Your task to perform on an android device: delete the emails in spam in the gmail app Image 0: 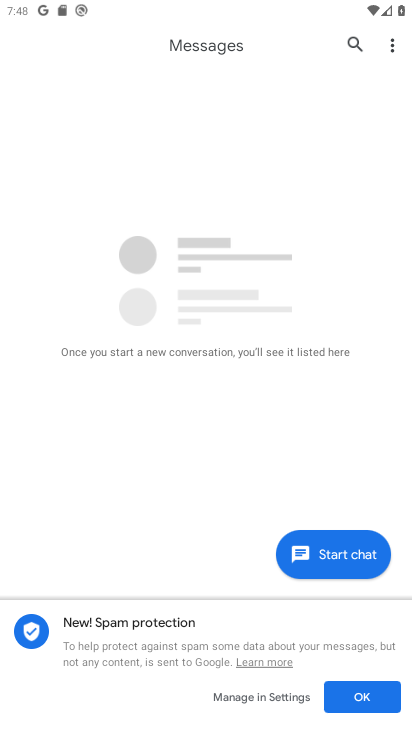
Step 0: press home button
Your task to perform on an android device: delete the emails in spam in the gmail app Image 1: 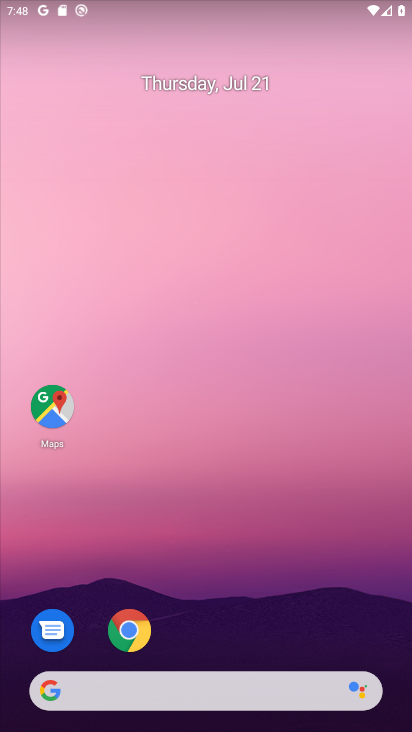
Step 1: drag from (215, 651) to (194, 140)
Your task to perform on an android device: delete the emails in spam in the gmail app Image 2: 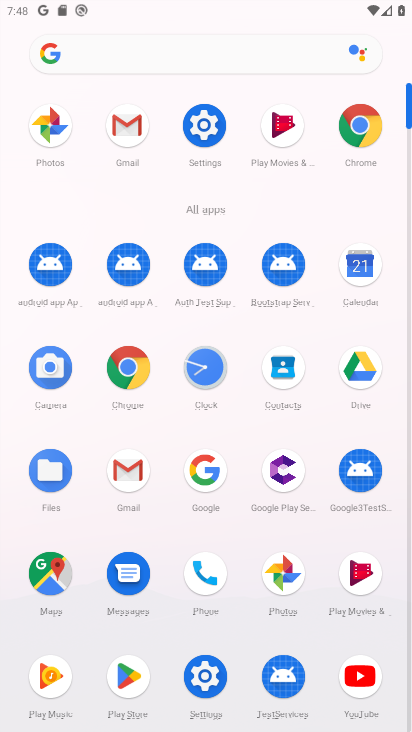
Step 2: click (142, 462)
Your task to perform on an android device: delete the emails in spam in the gmail app Image 3: 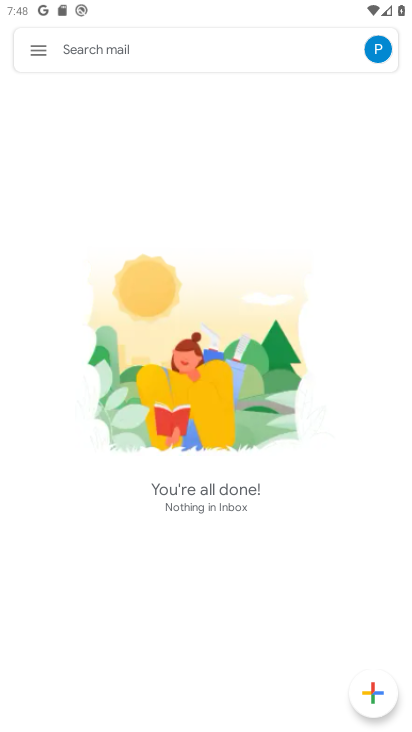
Step 3: task complete